Your task to perform on an android device: open the mobile data screen to see how much data has been used Image 0: 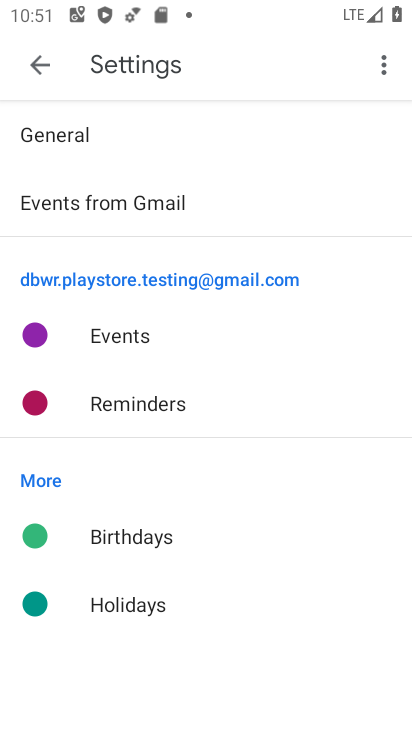
Step 0: press home button
Your task to perform on an android device: open the mobile data screen to see how much data has been used Image 1: 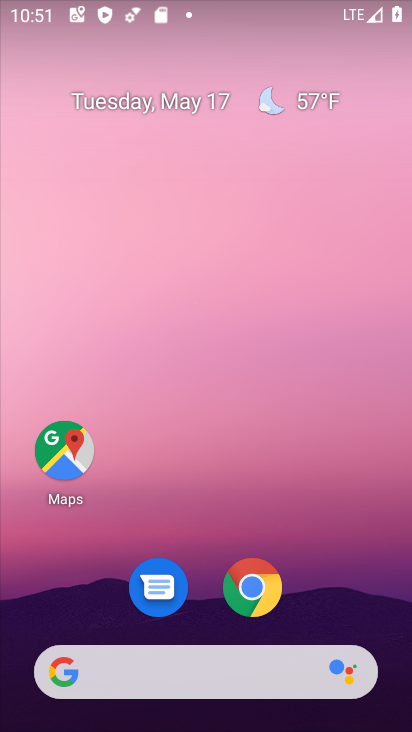
Step 1: drag from (362, 534) to (238, 115)
Your task to perform on an android device: open the mobile data screen to see how much data has been used Image 2: 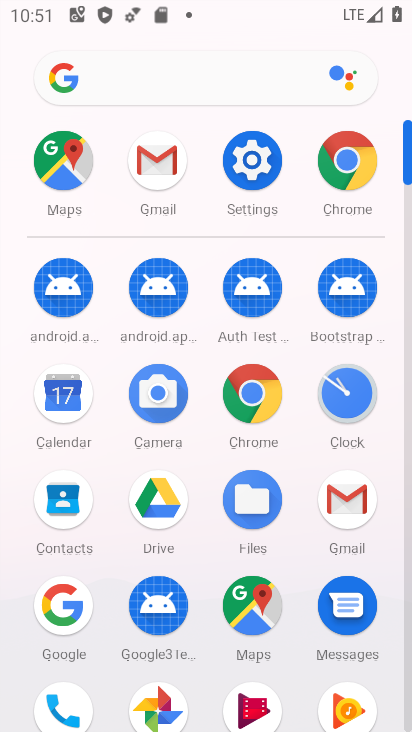
Step 2: click (260, 162)
Your task to perform on an android device: open the mobile data screen to see how much data has been used Image 3: 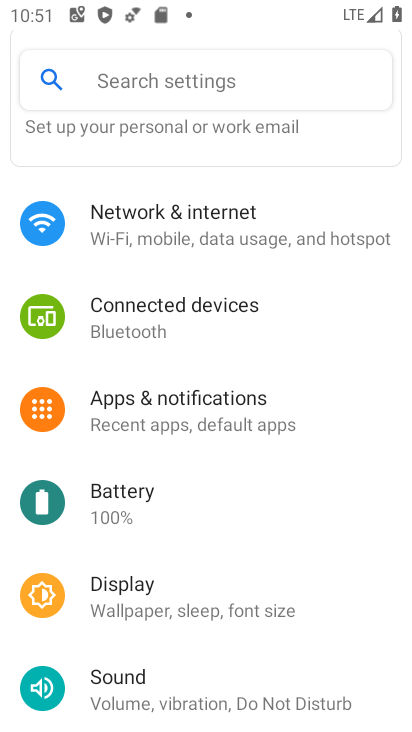
Step 3: click (229, 213)
Your task to perform on an android device: open the mobile data screen to see how much data has been used Image 4: 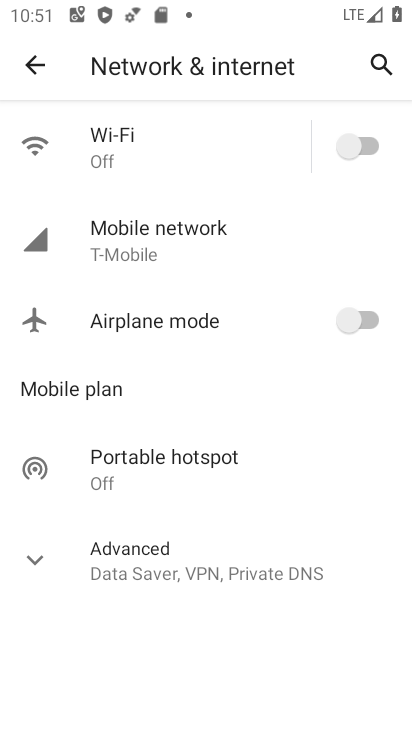
Step 4: click (180, 244)
Your task to perform on an android device: open the mobile data screen to see how much data has been used Image 5: 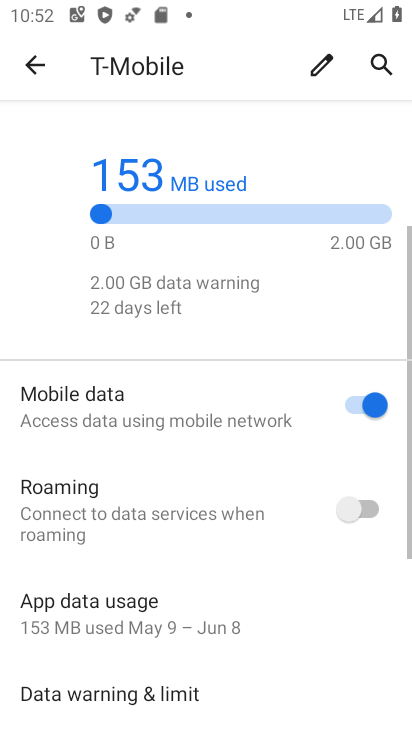
Step 5: click (118, 597)
Your task to perform on an android device: open the mobile data screen to see how much data has been used Image 6: 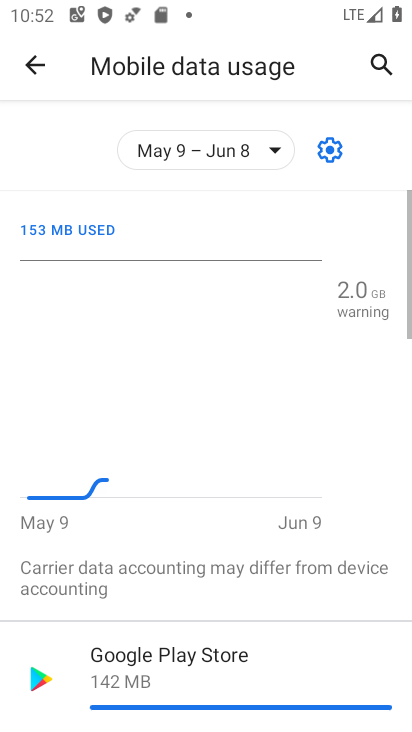
Step 6: task complete